Your task to perform on an android device: Clear all items from cart on newegg.com. Add acer predator to the cart on newegg.com, then select checkout. Image 0: 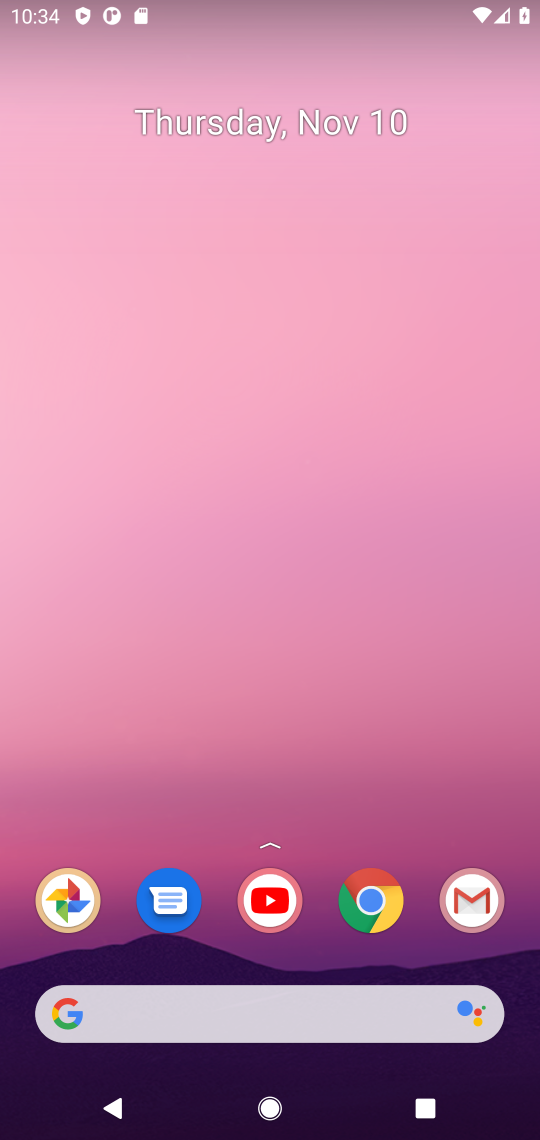
Step 0: click (363, 901)
Your task to perform on an android device: Clear all items from cart on newegg.com. Add acer predator to the cart on newegg.com, then select checkout. Image 1: 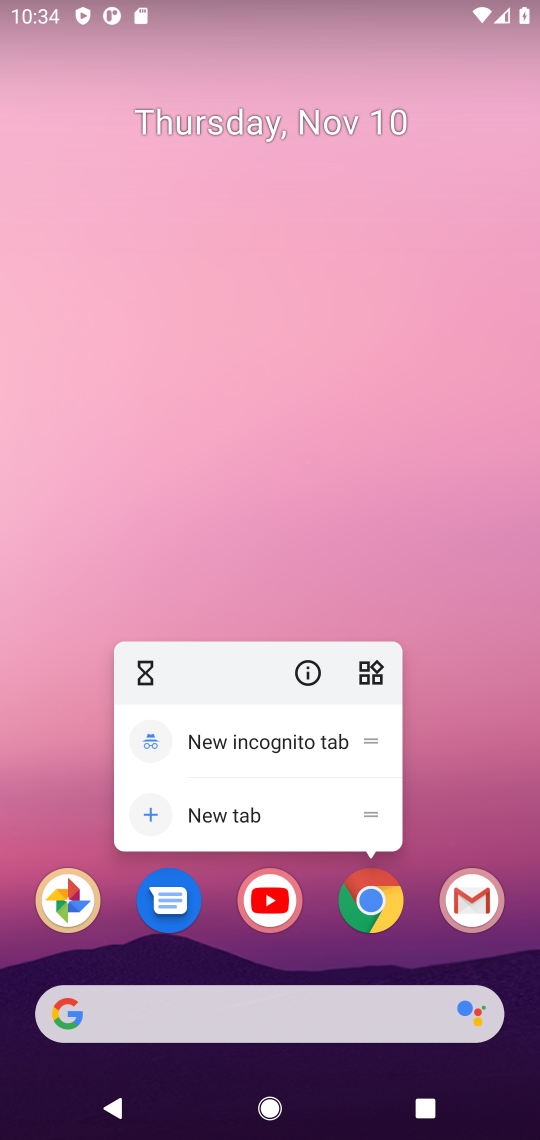
Step 1: click (364, 898)
Your task to perform on an android device: Clear all items from cart on newegg.com. Add acer predator to the cart on newegg.com, then select checkout. Image 2: 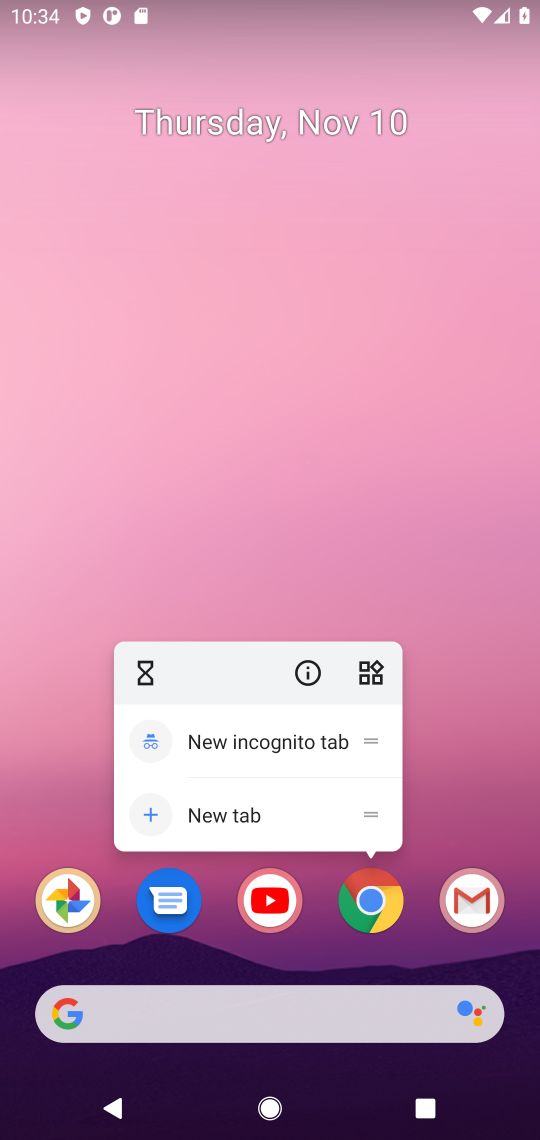
Step 2: click (364, 898)
Your task to perform on an android device: Clear all items from cart on newegg.com. Add acer predator to the cart on newegg.com, then select checkout. Image 3: 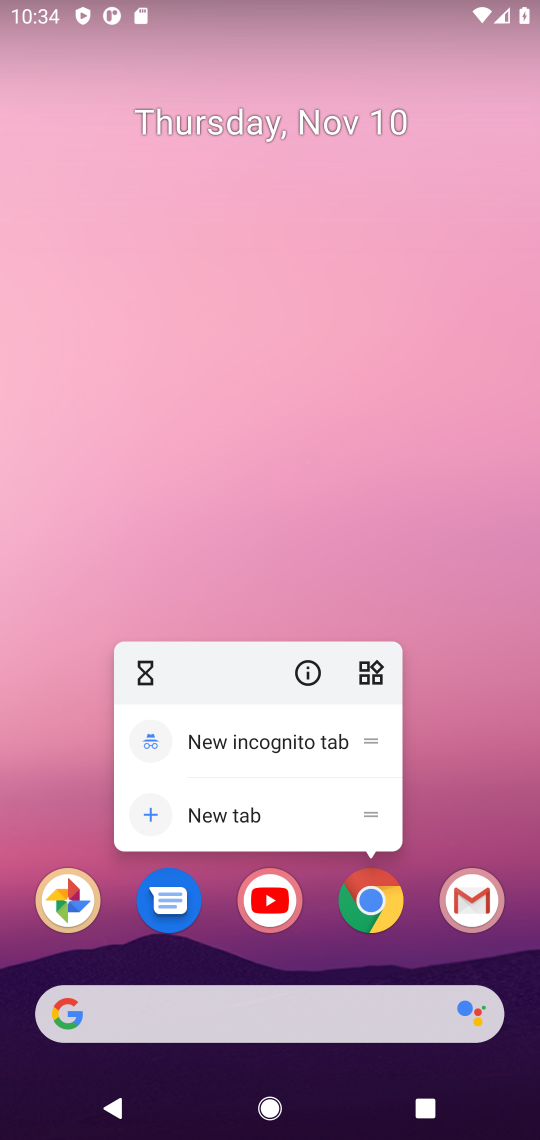
Step 3: click (375, 889)
Your task to perform on an android device: Clear all items from cart on newegg.com. Add acer predator to the cart on newegg.com, then select checkout. Image 4: 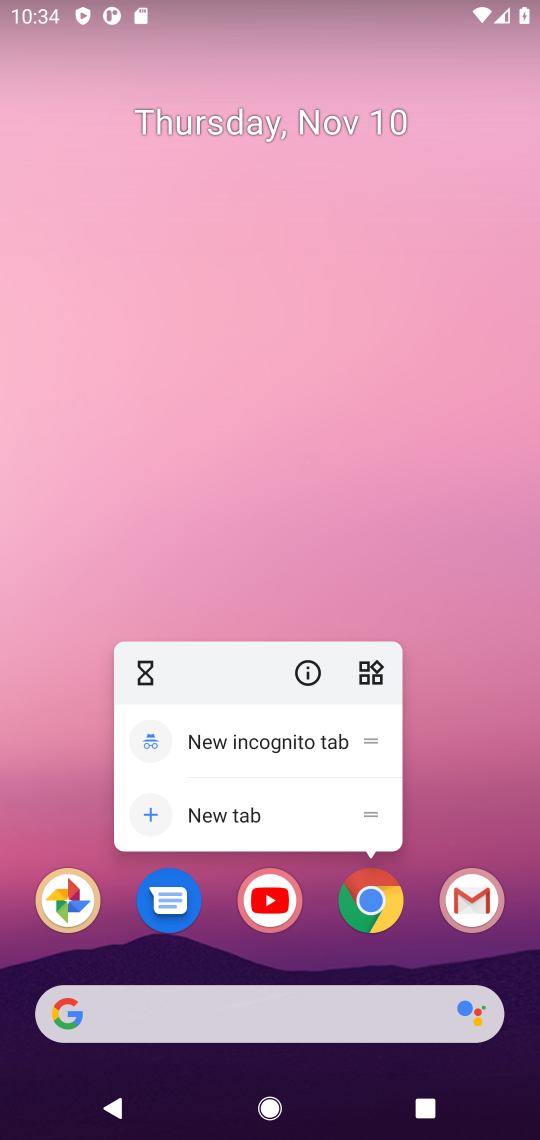
Step 4: click (385, 894)
Your task to perform on an android device: Clear all items from cart on newegg.com. Add acer predator to the cart on newegg.com, then select checkout. Image 5: 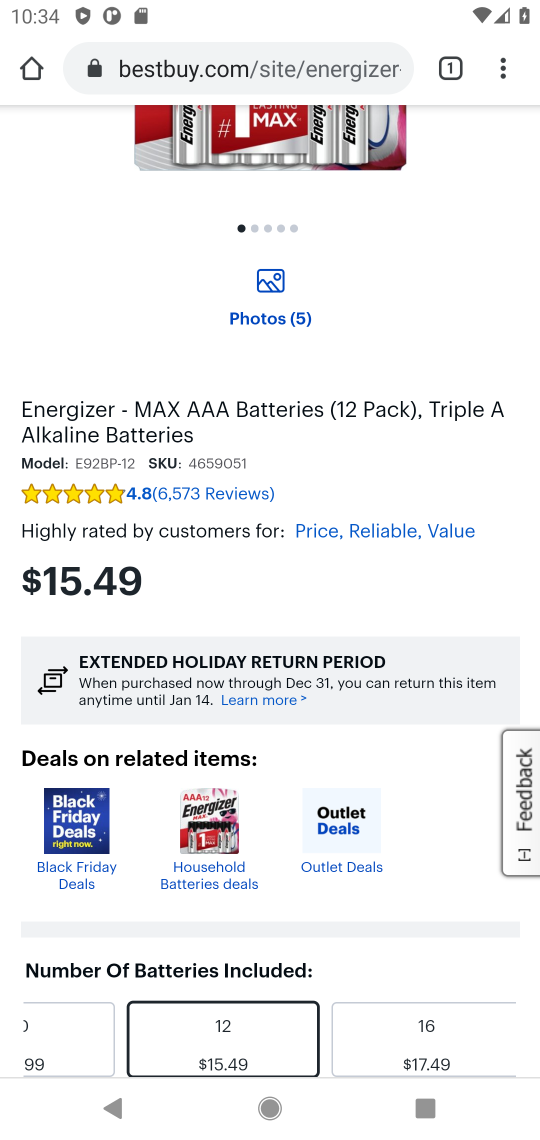
Step 5: drag from (445, 228) to (307, 937)
Your task to perform on an android device: Clear all items from cart on newegg.com. Add acer predator to the cart on newegg.com, then select checkout. Image 6: 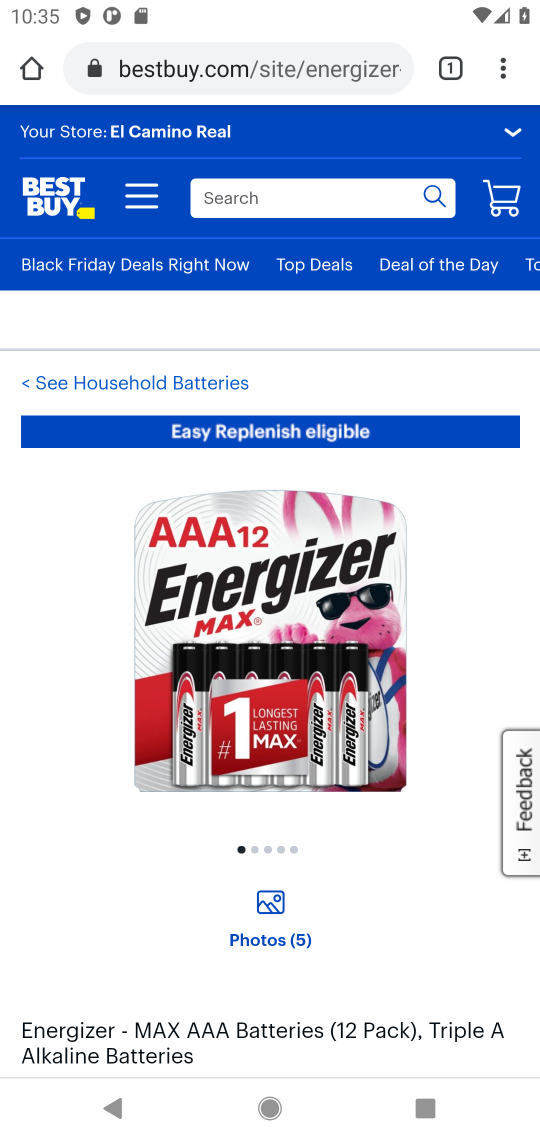
Step 6: click (340, 207)
Your task to perform on an android device: Clear all items from cart on newegg.com. Add acer predator to the cart on newegg.com, then select checkout. Image 7: 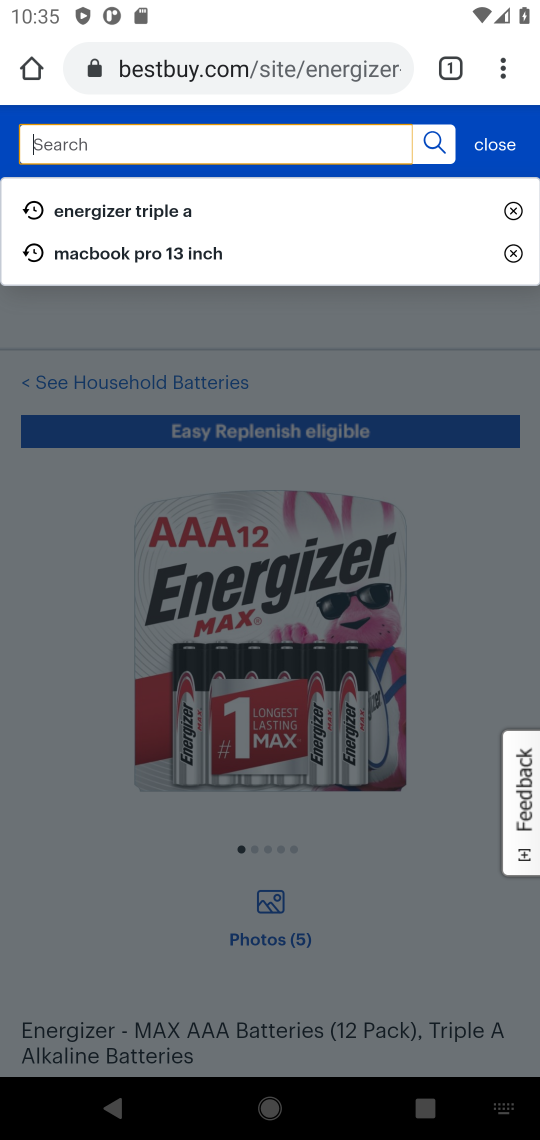
Step 7: type " newegg.com"
Your task to perform on an android device: Clear all items from cart on newegg.com. Add acer predator to the cart on newegg.com, then select checkout. Image 8: 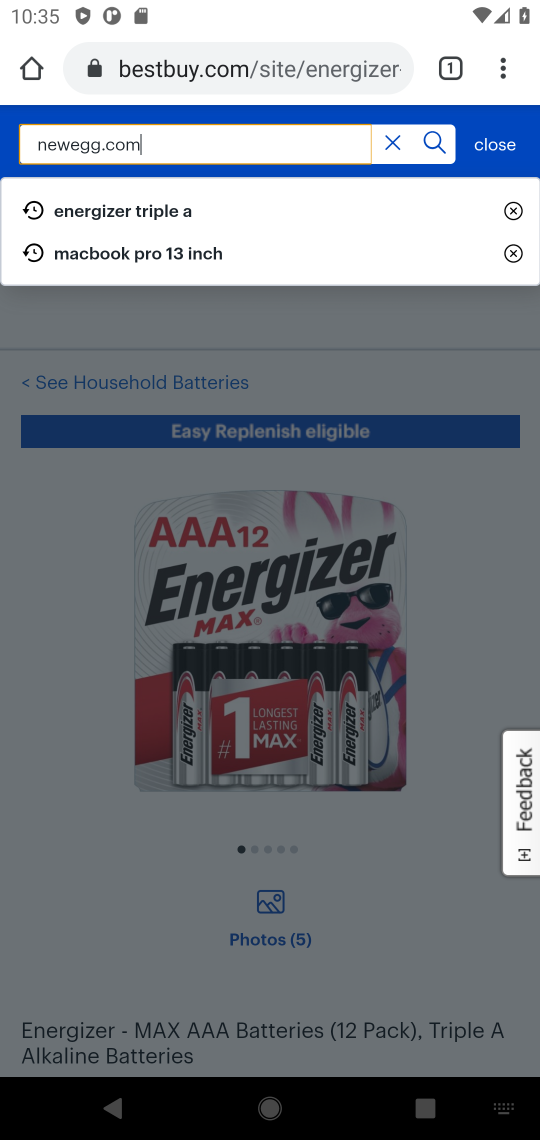
Step 8: press enter
Your task to perform on an android device: Clear all items from cart on newegg.com. Add acer predator to the cart on newegg.com, then select checkout. Image 9: 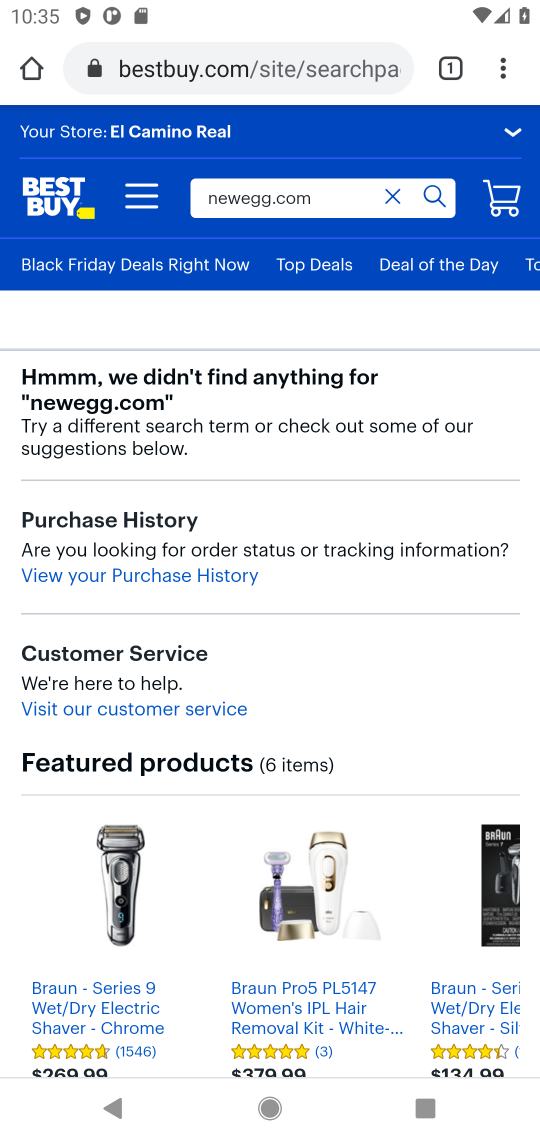
Step 9: click (343, 63)
Your task to perform on an android device: Clear all items from cart on newegg.com. Add acer predator to the cart on newegg.com, then select checkout. Image 10: 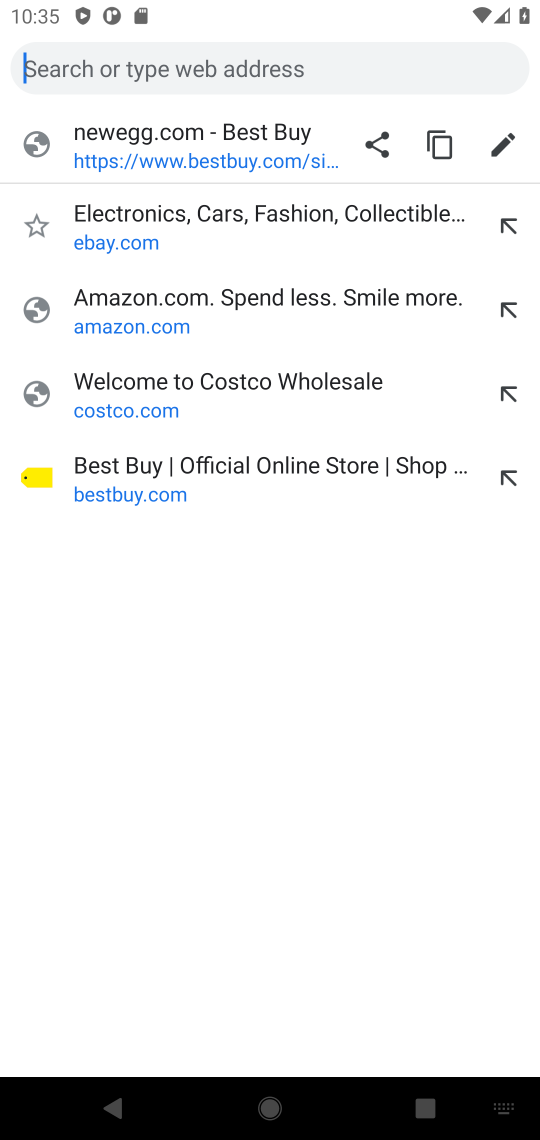
Step 10: click (211, 156)
Your task to perform on an android device: Clear all items from cart on newegg.com. Add acer predator to the cart on newegg.com, then select checkout. Image 11: 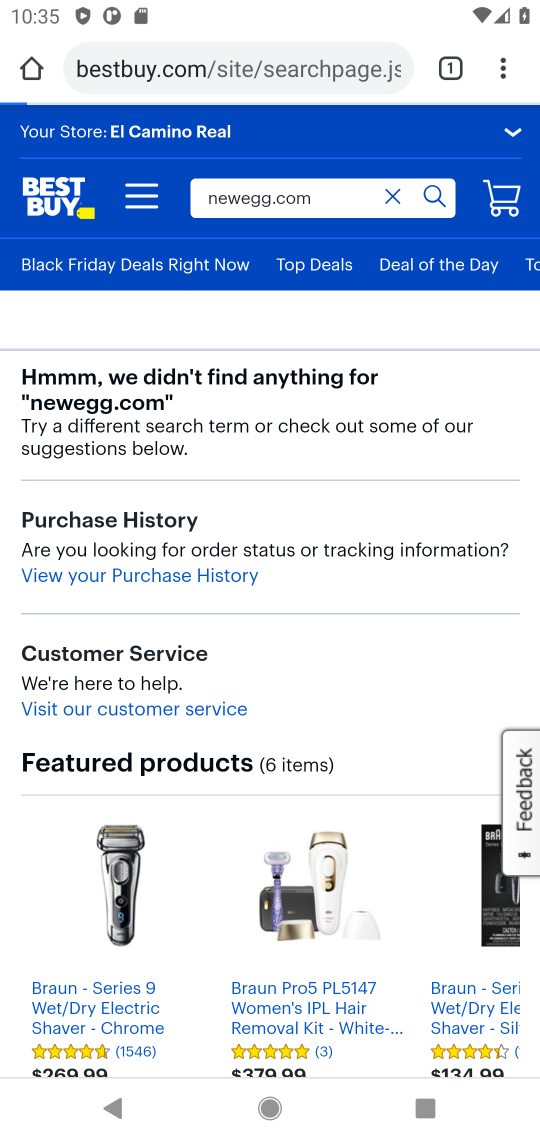
Step 11: click (313, 64)
Your task to perform on an android device: Clear all items from cart on newegg.com. Add acer predator to the cart on newegg.com, then select checkout. Image 12: 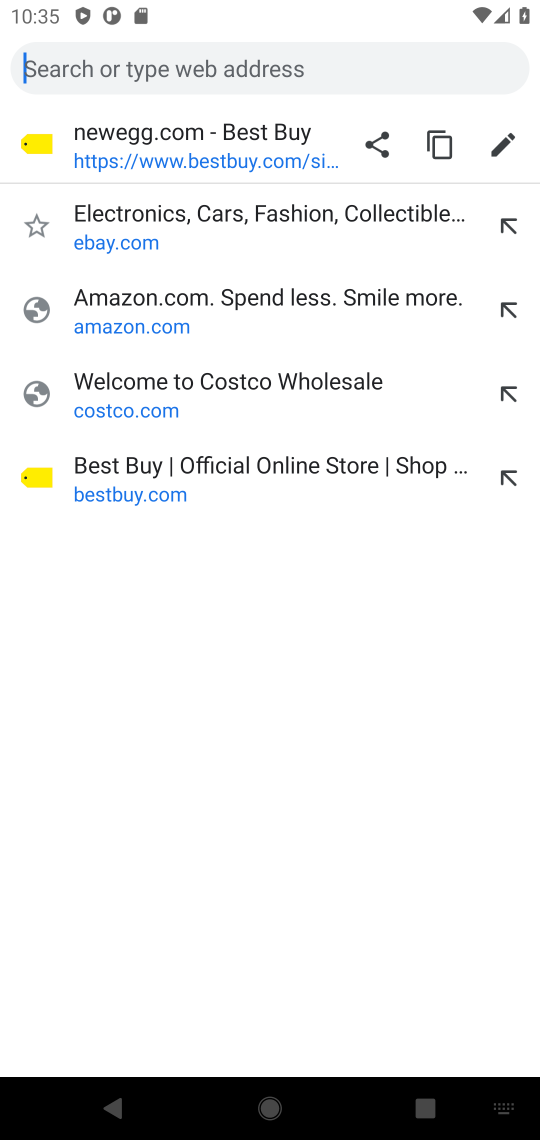
Step 12: type "newegg.com"
Your task to perform on an android device: Clear all items from cart on newegg.com. Add acer predator to the cart on newegg.com, then select checkout. Image 13: 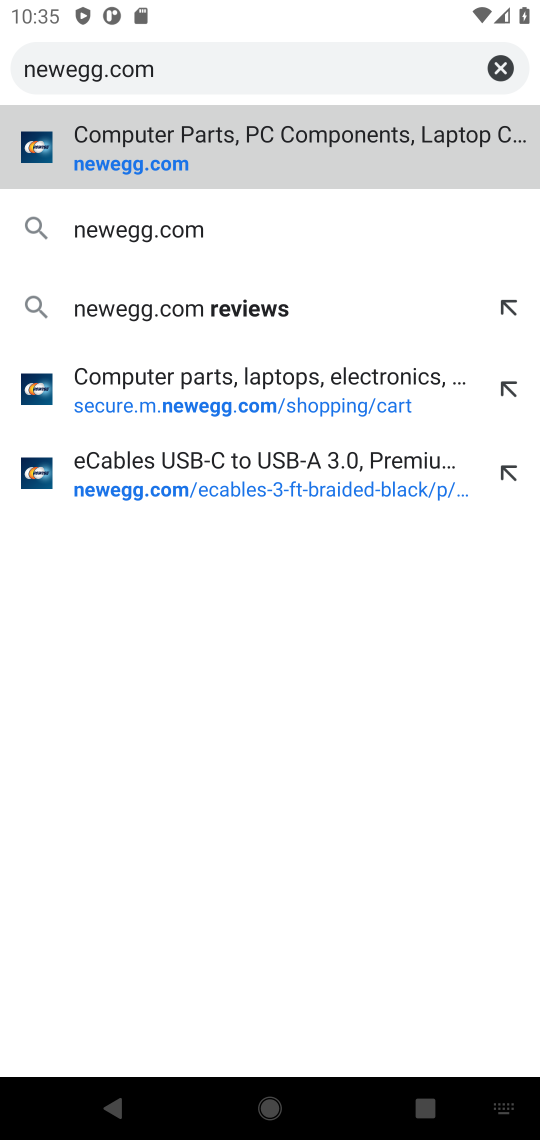
Step 13: press enter
Your task to perform on an android device: Clear all items from cart on newegg.com. Add acer predator to the cart on newegg.com, then select checkout. Image 14: 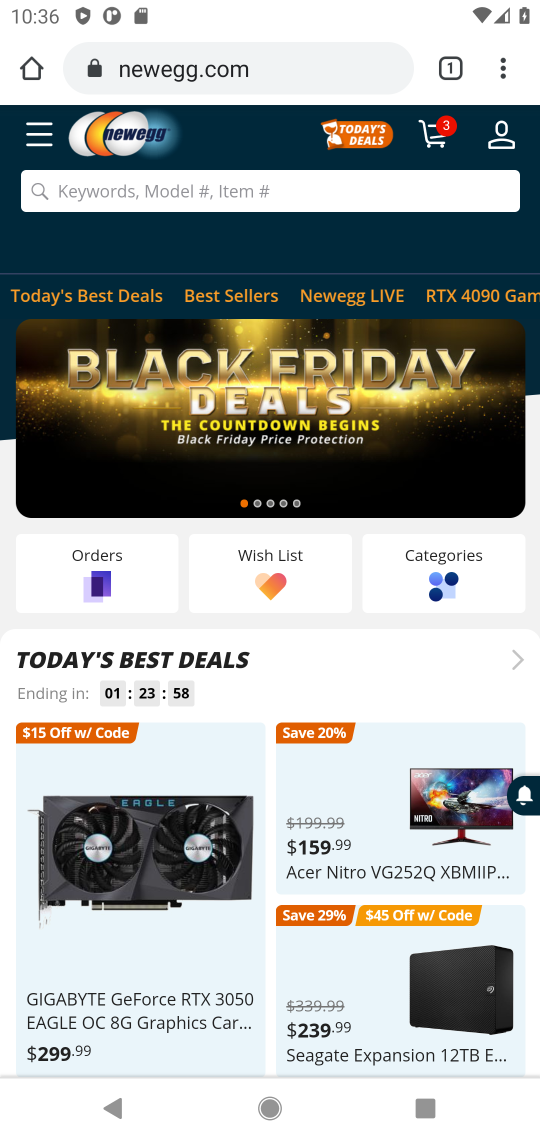
Step 14: click (338, 185)
Your task to perform on an android device: Clear all items from cart on newegg.com. Add acer predator to the cart on newegg.com, then select checkout. Image 15: 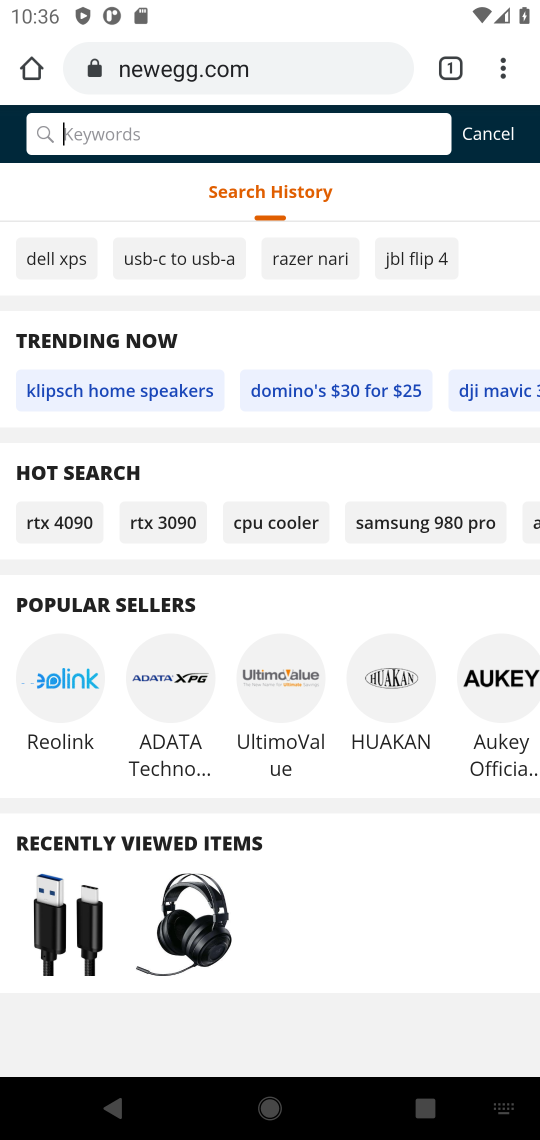
Step 15: click (245, 122)
Your task to perform on an android device: Clear all items from cart on newegg.com. Add acer predator to the cart on newegg.com, then select checkout. Image 16: 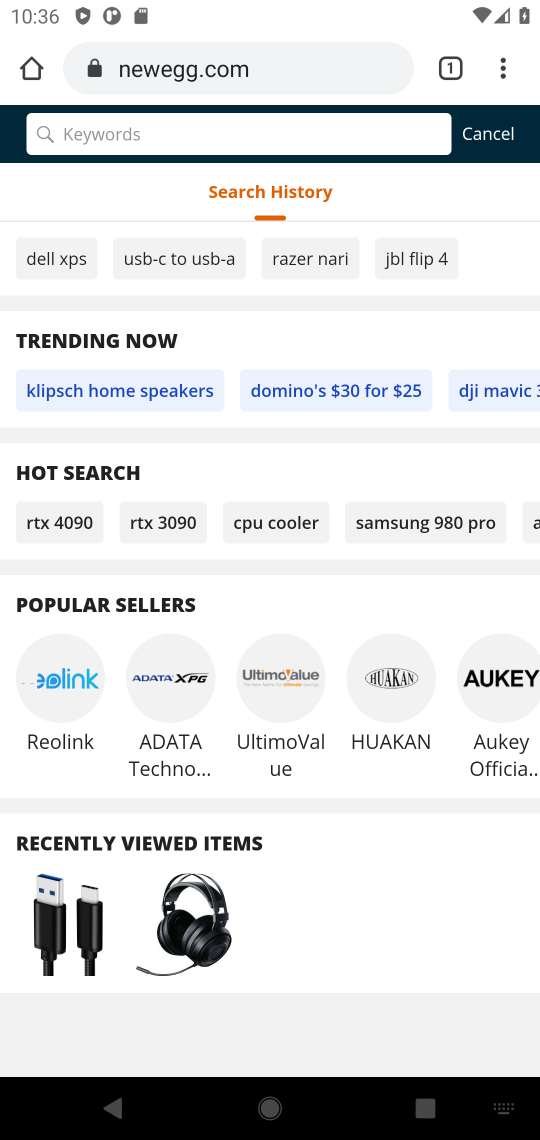
Step 16: type " acer predator"
Your task to perform on an android device: Clear all items from cart on newegg.com. Add acer predator to the cart on newegg.com, then select checkout. Image 17: 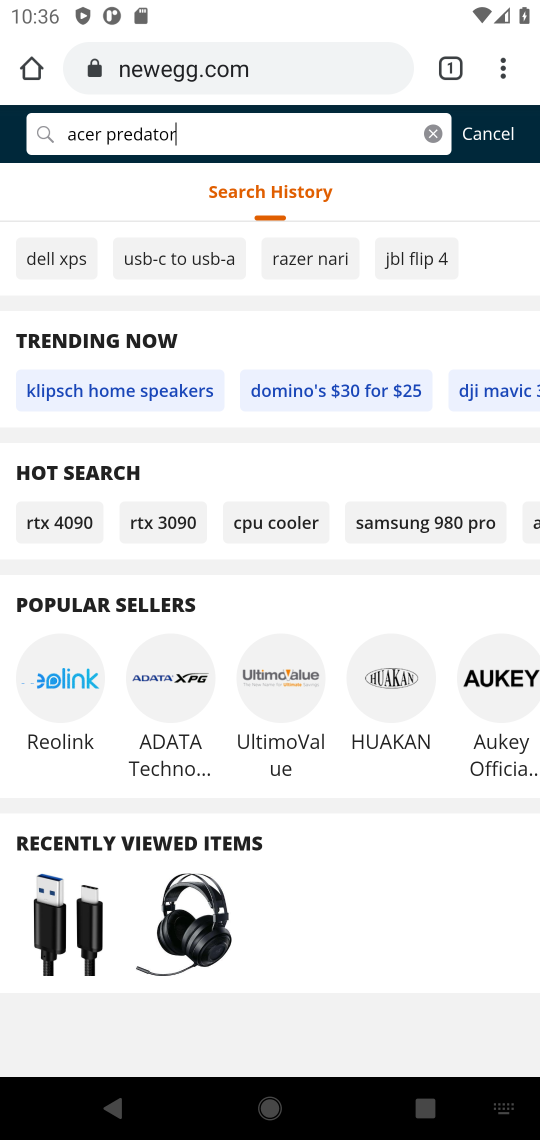
Step 17: press enter
Your task to perform on an android device: Clear all items from cart on newegg.com. Add acer predator to the cart on newegg.com, then select checkout. Image 18: 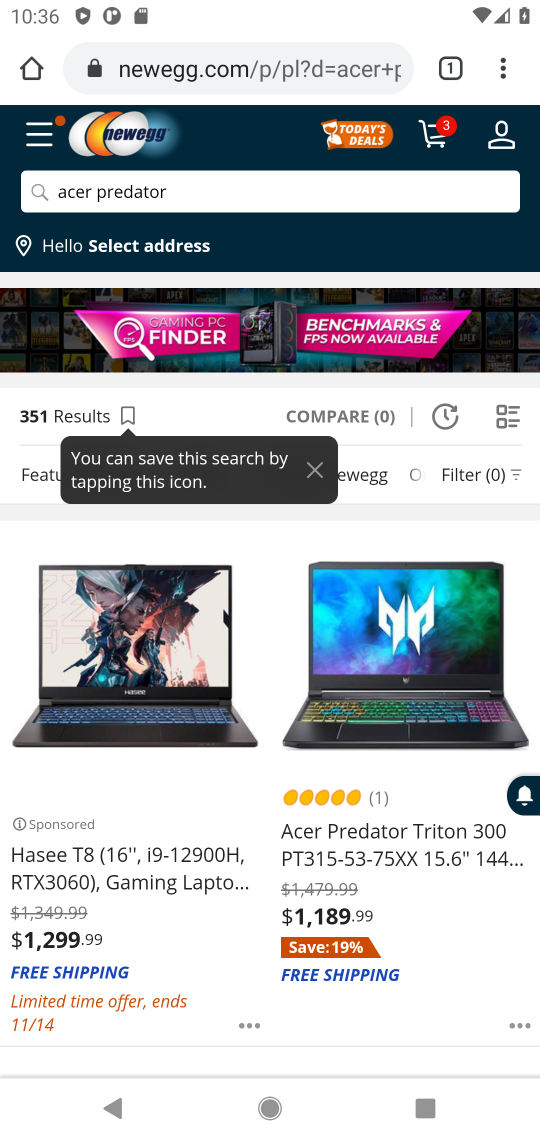
Step 18: click (379, 848)
Your task to perform on an android device: Clear all items from cart on newegg.com. Add acer predator to the cart on newegg.com, then select checkout. Image 19: 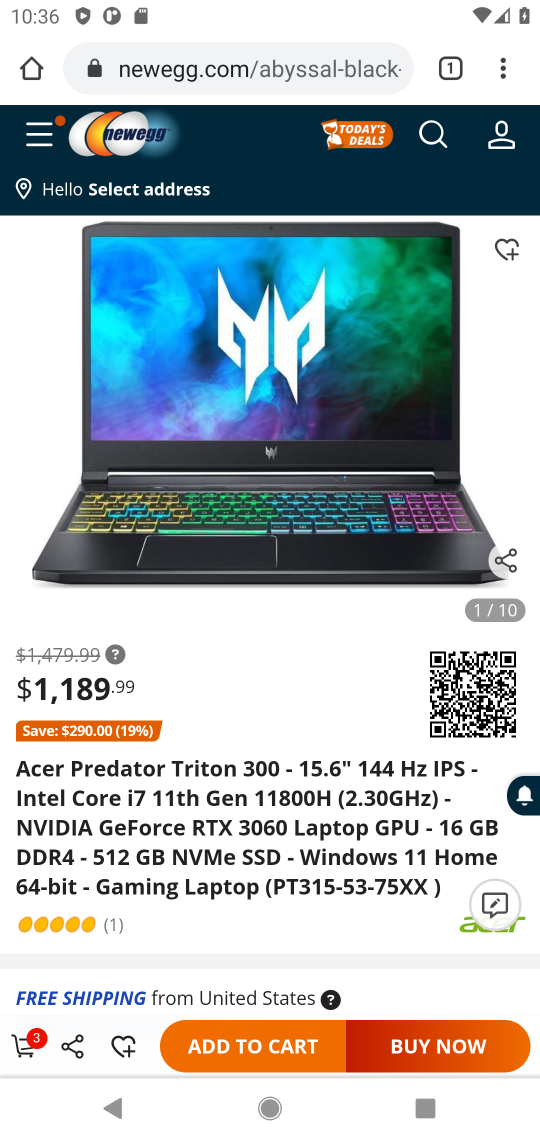
Step 19: click (259, 1048)
Your task to perform on an android device: Clear all items from cart on newegg.com. Add acer predator to the cart on newegg.com, then select checkout. Image 20: 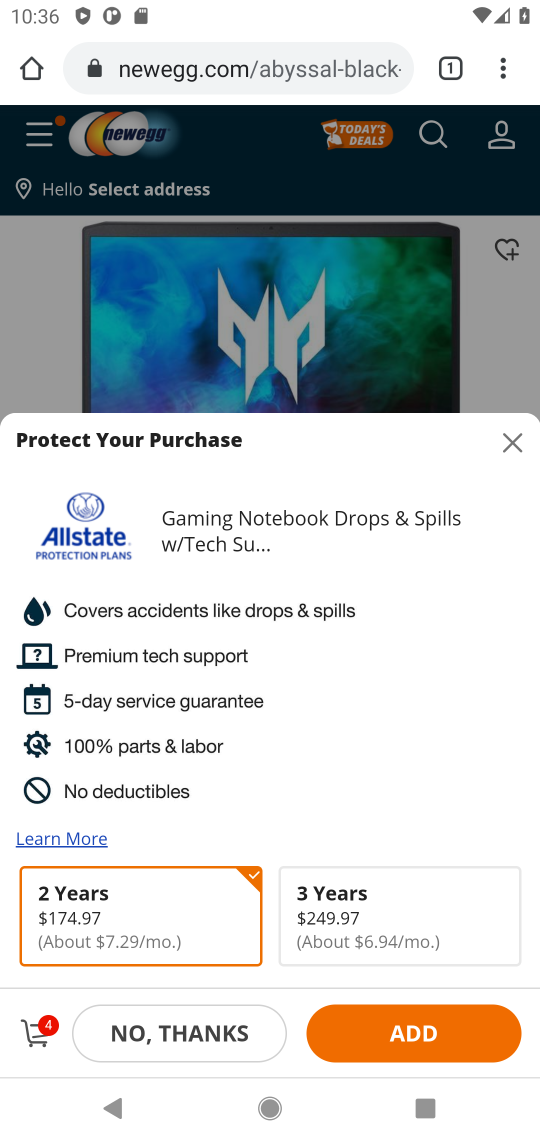
Step 20: click (36, 1024)
Your task to perform on an android device: Clear all items from cart on newegg.com. Add acer predator to the cart on newegg.com, then select checkout. Image 21: 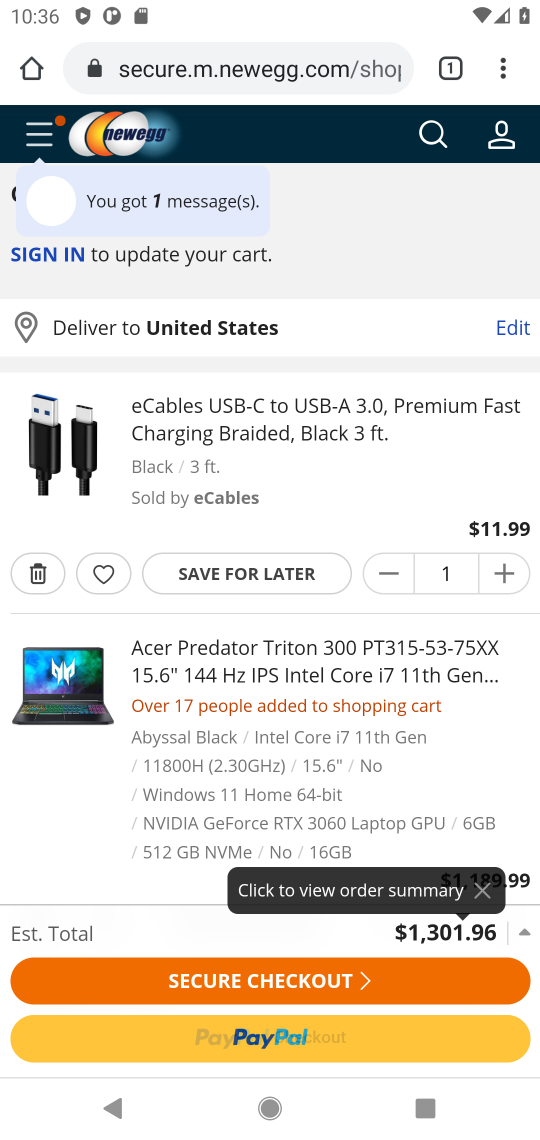
Step 21: click (36, 571)
Your task to perform on an android device: Clear all items from cart on newegg.com. Add acer predator to the cart on newegg.com, then select checkout. Image 22: 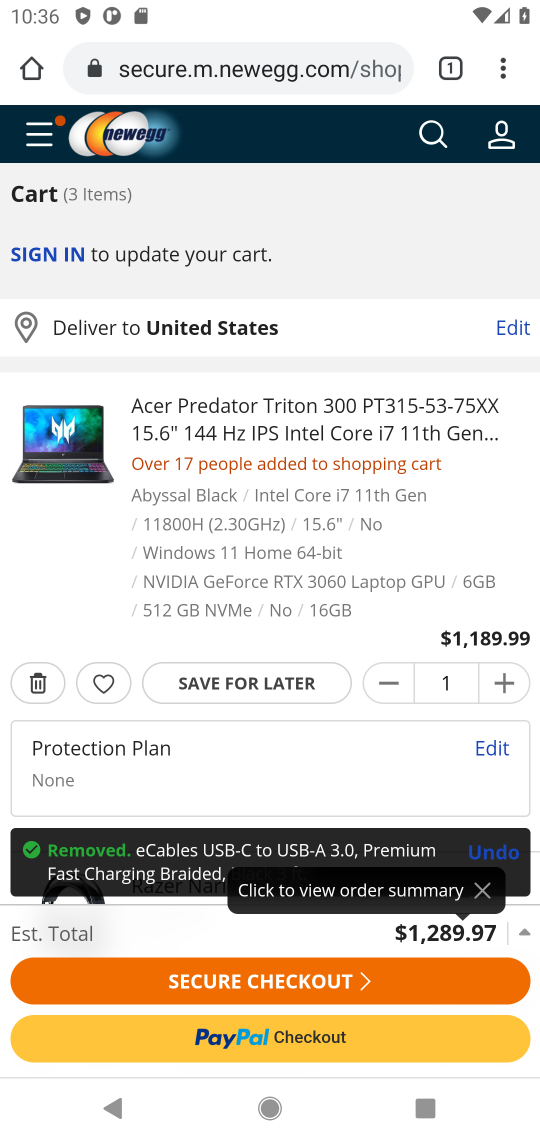
Step 22: drag from (75, 756) to (438, 167)
Your task to perform on an android device: Clear all items from cart on newegg.com. Add acer predator to the cart on newegg.com, then select checkout. Image 23: 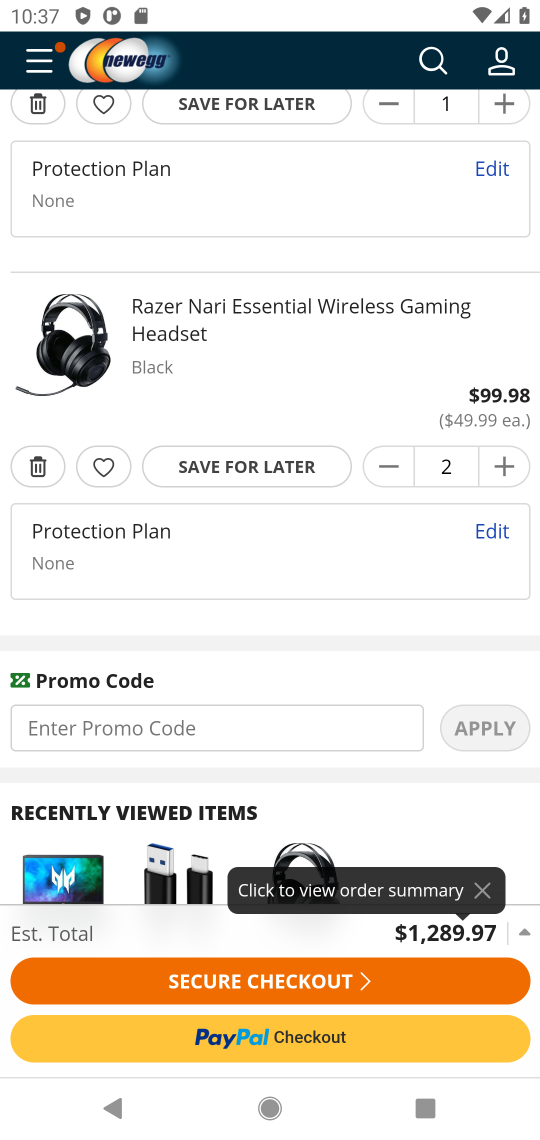
Step 23: click (31, 460)
Your task to perform on an android device: Clear all items from cart on newegg.com. Add acer predator to the cart on newegg.com, then select checkout. Image 24: 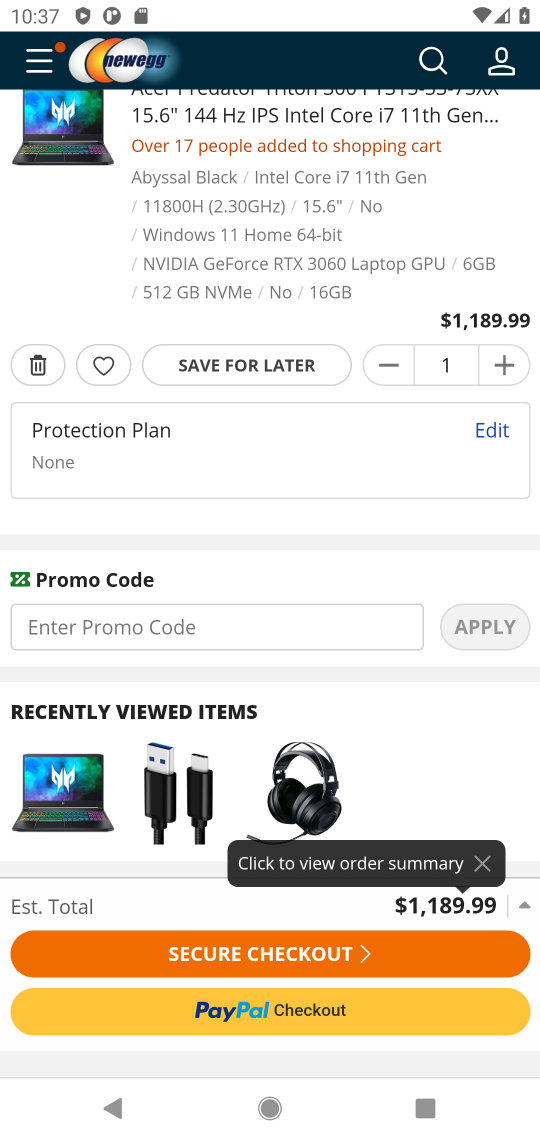
Step 24: task complete